Your task to perform on an android device: Open privacy settings Image 0: 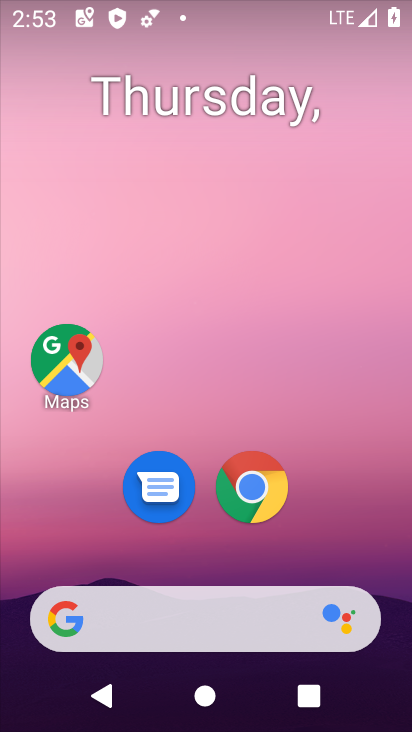
Step 0: drag from (351, 539) to (306, 50)
Your task to perform on an android device: Open privacy settings Image 1: 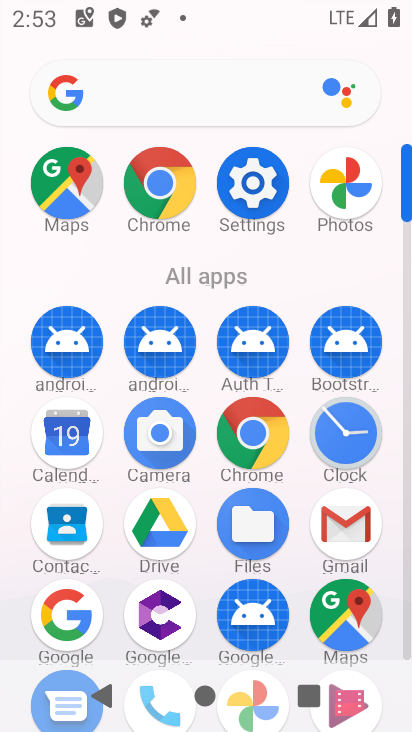
Step 1: click (256, 195)
Your task to perform on an android device: Open privacy settings Image 2: 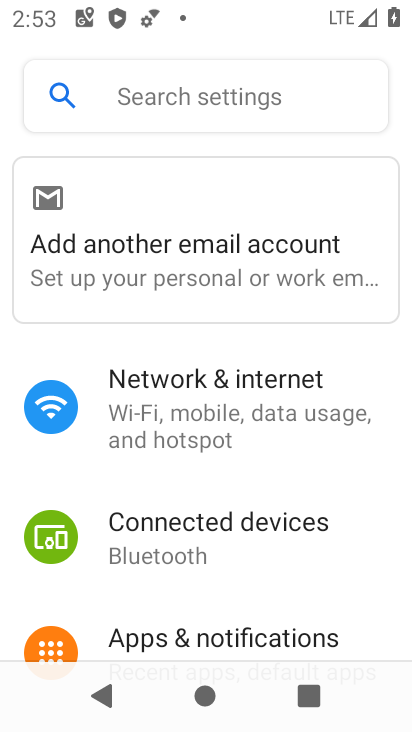
Step 2: drag from (216, 543) to (187, 207)
Your task to perform on an android device: Open privacy settings Image 3: 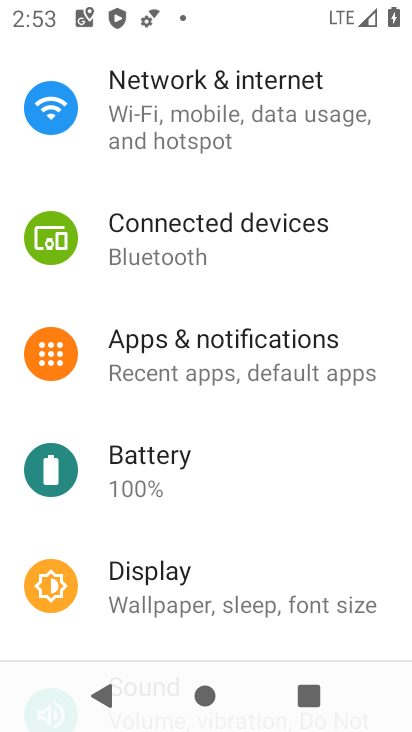
Step 3: drag from (183, 532) to (189, 216)
Your task to perform on an android device: Open privacy settings Image 4: 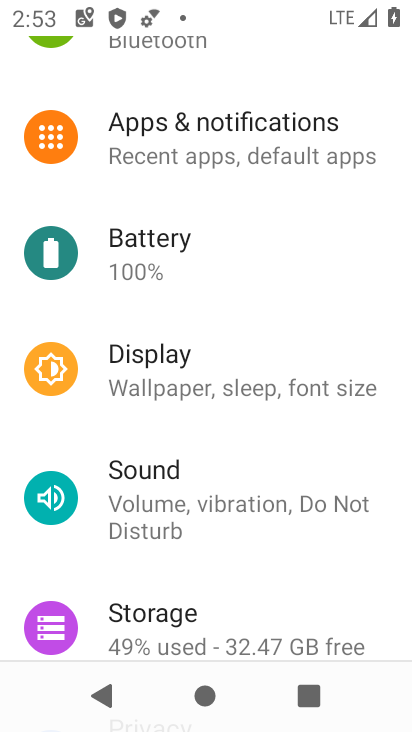
Step 4: drag from (184, 559) to (213, 209)
Your task to perform on an android device: Open privacy settings Image 5: 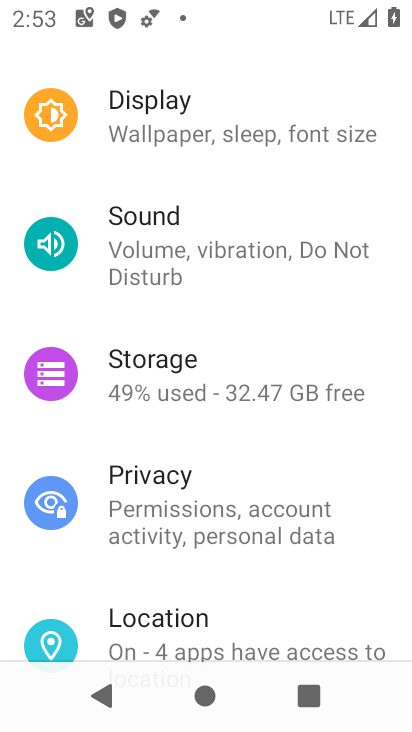
Step 5: click (121, 476)
Your task to perform on an android device: Open privacy settings Image 6: 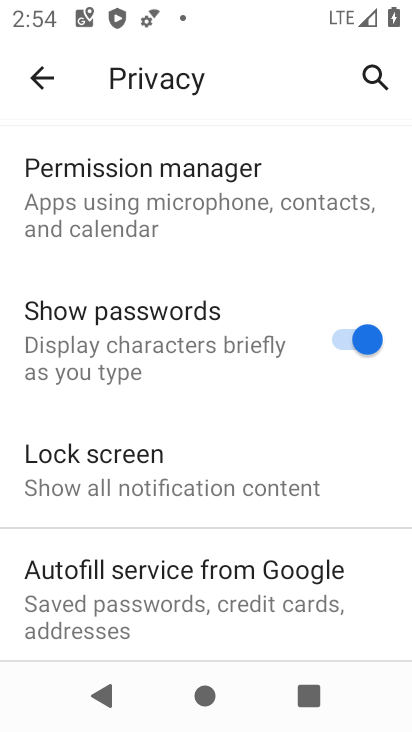
Step 6: task complete